Your task to perform on an android device: set an alarm Image 0: 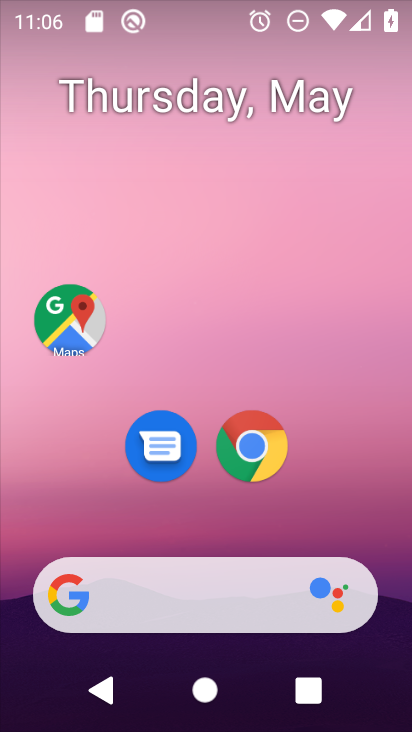
Step 0: drag from (219, 637) to (324, 333)
Your task to perform on an android device: set an alarm Image 1: 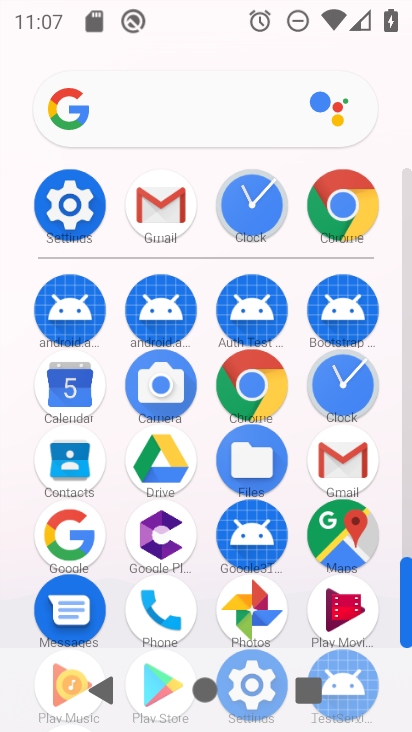
Step 1: click (344, 385)
Your task to perform on an android device: set an alarm Image 2: 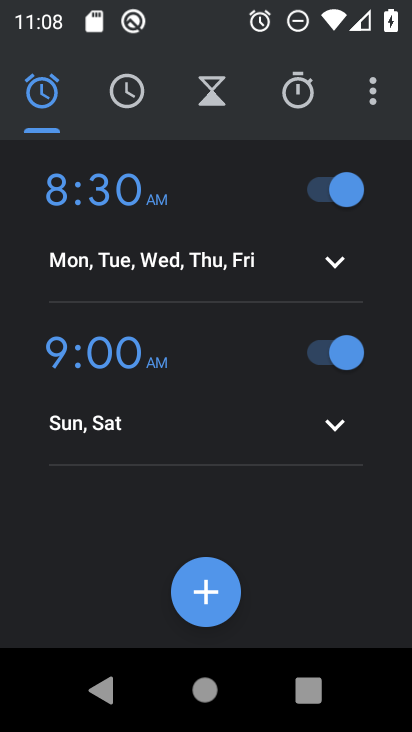
Step 2: click (195, 219)
Your task to perform on an android device: set an alarm Image 3: 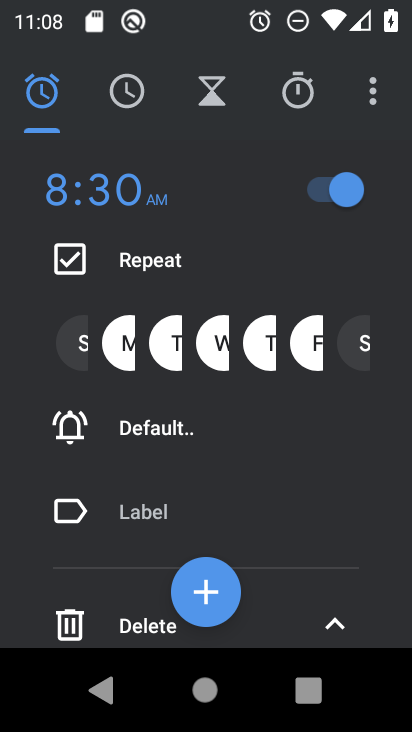
Step 3: click (81, 342)
Your task to perform on an android device: set an alarm Image 4: 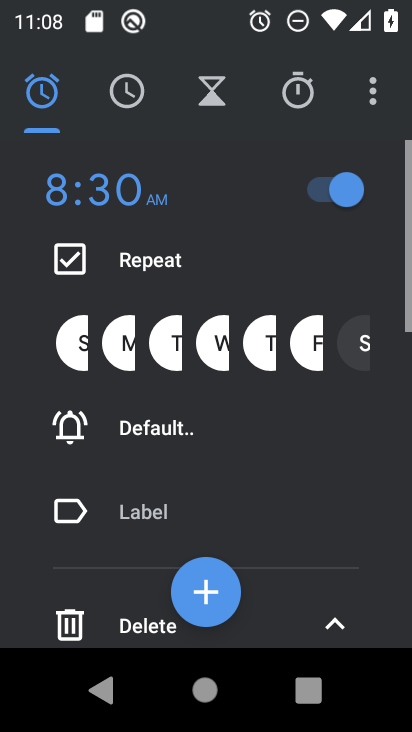
Step 4: click (347, 357)
Your task to perform on an android device: set an alarm Image 5: 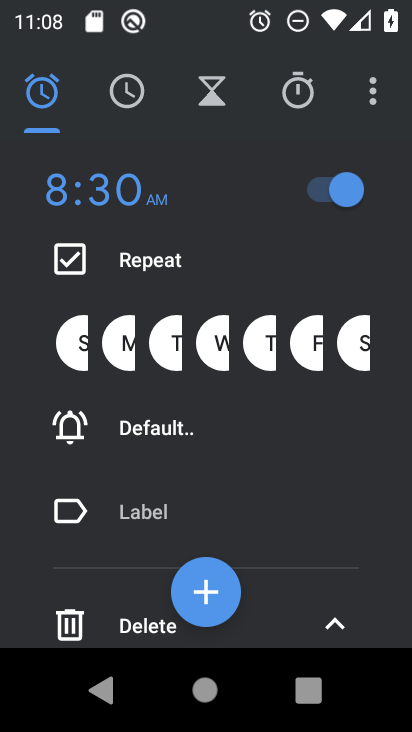
Step 5: task complete